Your task to perform on an android device: Open CNN.com Image 0: 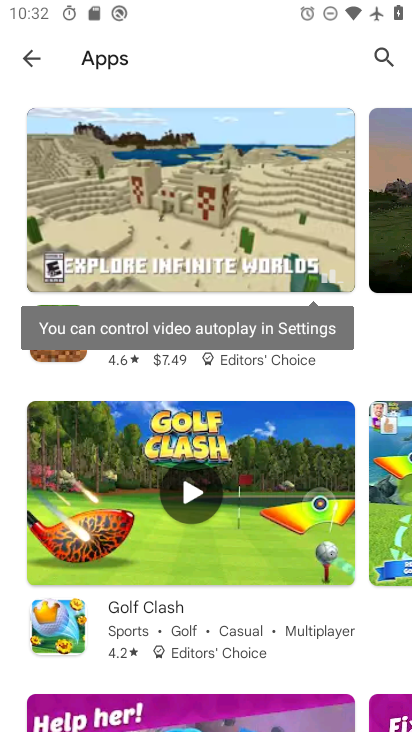
Step 0: press home button
Your task to perform on an android device: Open CNN.com Image 1: 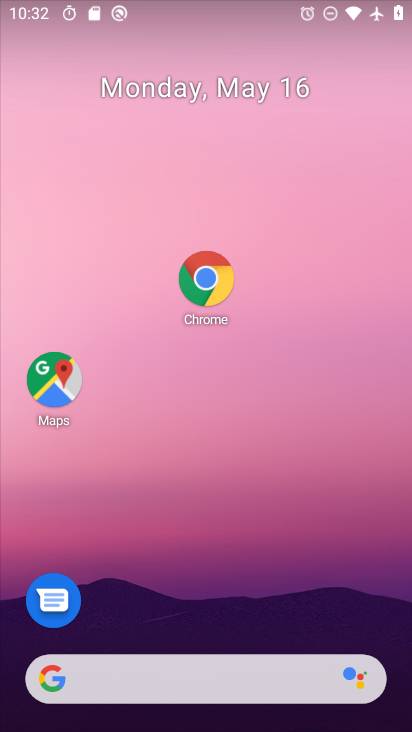
Step 1: click (214, 274)
Your task to perform on an android device: Open CNN.com Image 2: 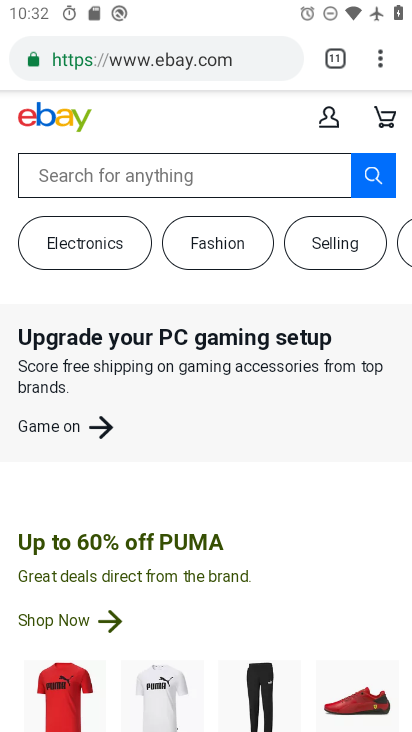
Step 2: drag from (383, 67) to (300, 119)
Your task to perform on an android device: Open CNN.com Image 3: 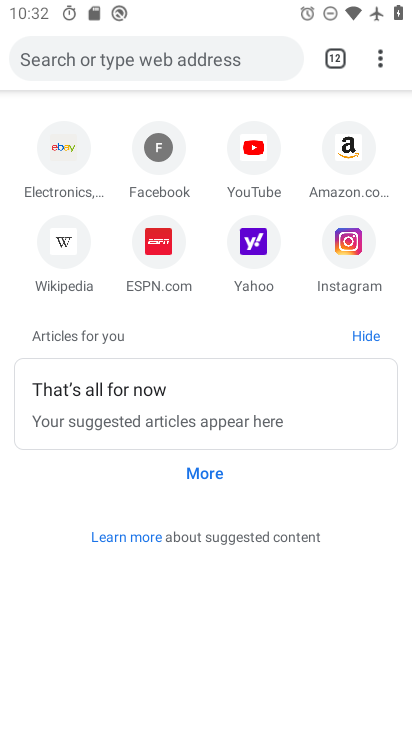
Step 3: click (147, 57)
Your task to perform on an android device: Open CNN.com Image 4: 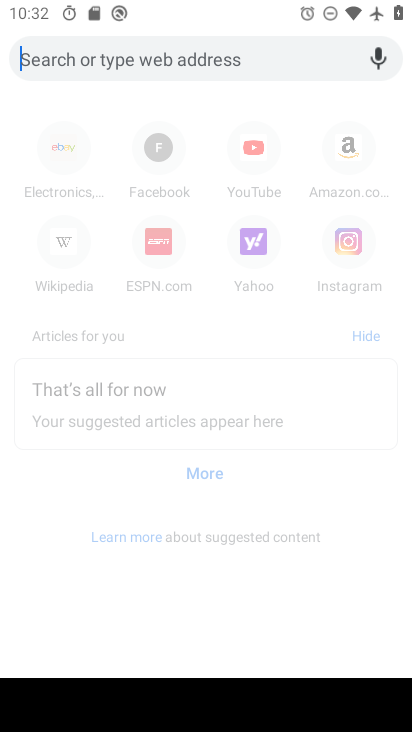
Step 4: type "cnn.com"
Your task to perform on an android device: Open CNN.com Image 5: 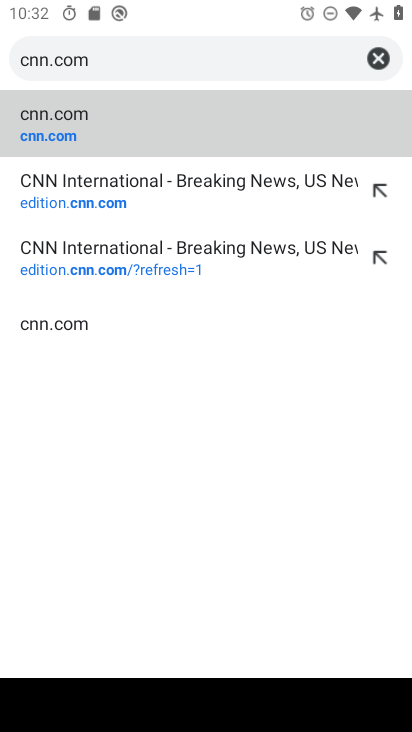
Step 5: click (97, 109)
Your task to perform on an android device: Open CNN.com Image 6: 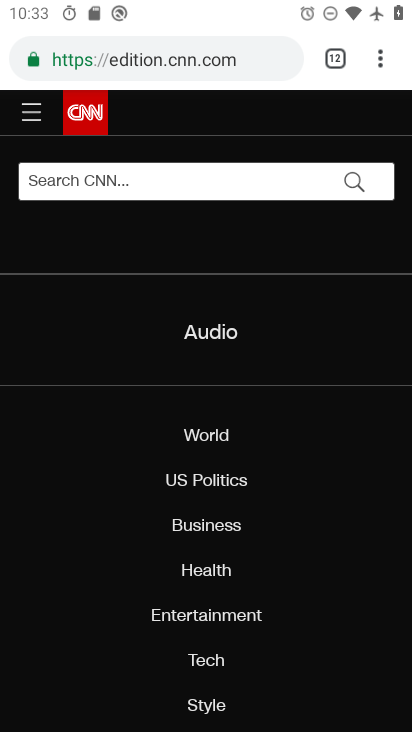
Step 6: task complete